Your task to perform on an android device: add a label to a message in the gmail app Image 0: 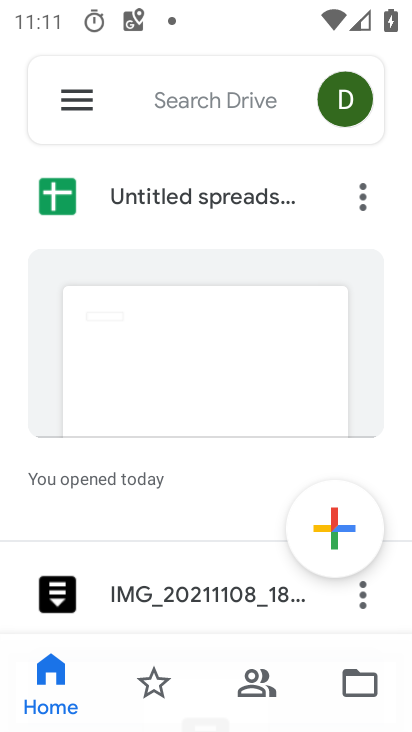
Step 0: press home button
Your task to perform on an android device: add a label to a message in the gmail app Image 1: 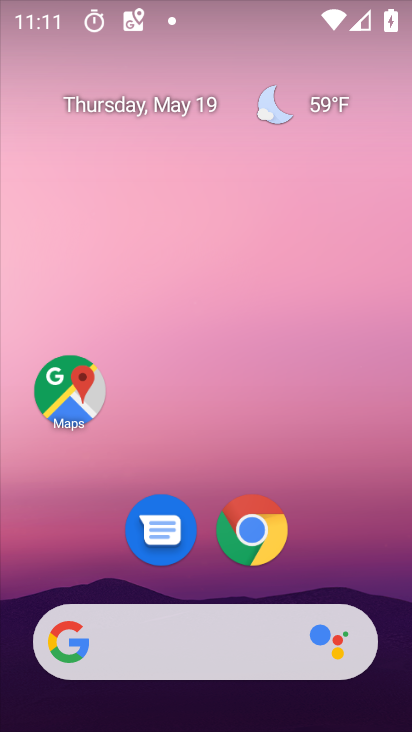
Step 1: drag from (371, 561) to (321, 115)
Your task to perform on an android device: add a label to a message in the gmail app Image 2: 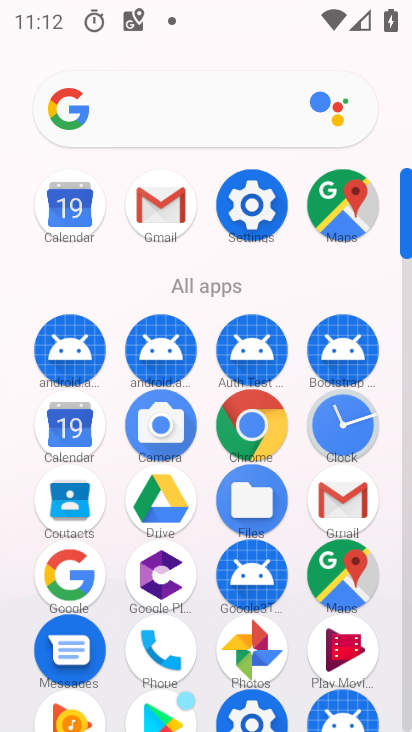
Step 2: click (334, 504)
Your task to perform on an android device: add a label to a message in the gmail app Image 3: 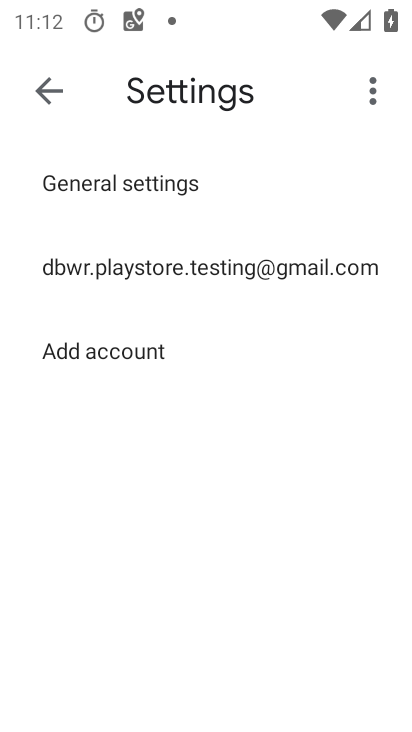
Step 3: click (249, 276)
Your task to perform on an android device: add a label to a message in the gmail app Image 4: 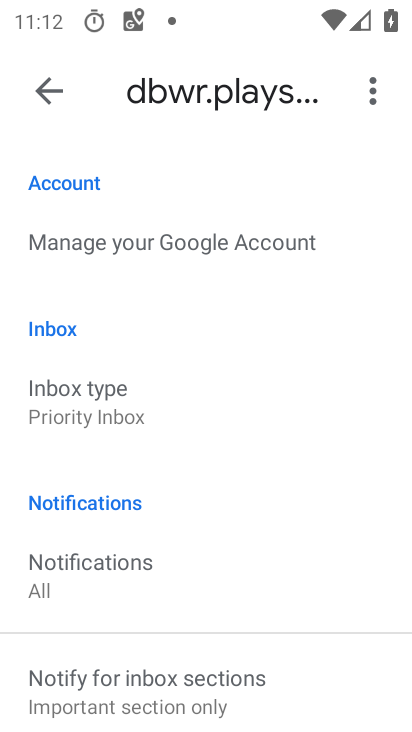
Step 4: click (54, 116)
Your task to perform on an android device: add a label to a message in the gmail app Image 5: 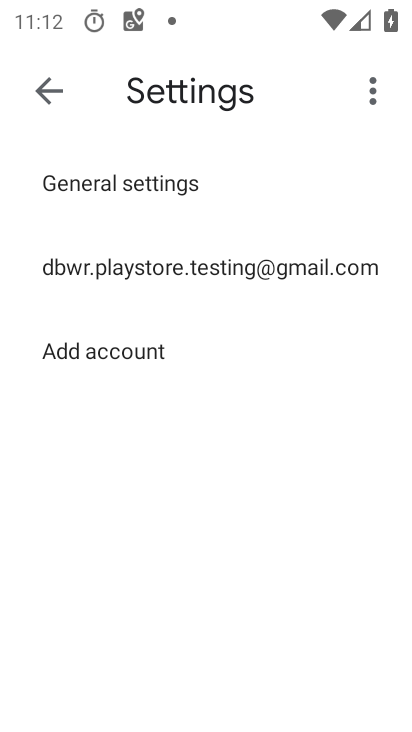
Step 5: click (54, 116)
Your task to perform on an android device: add a label to a message in the gmail app Image 6: 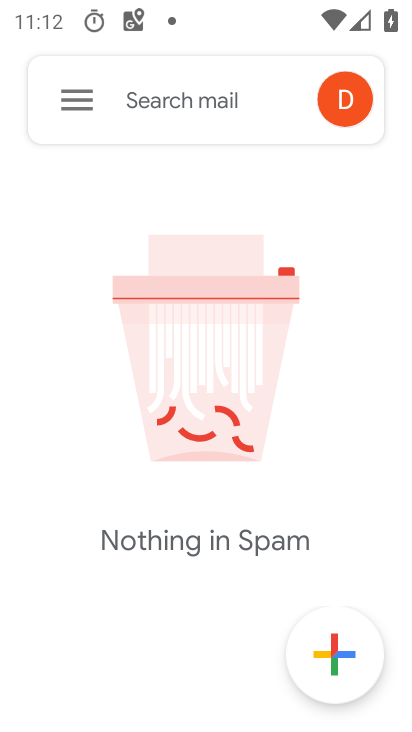
Step 6: click (88, 105)
Your task to perform on an android device: add a label to a message in the gmail app Image 7: 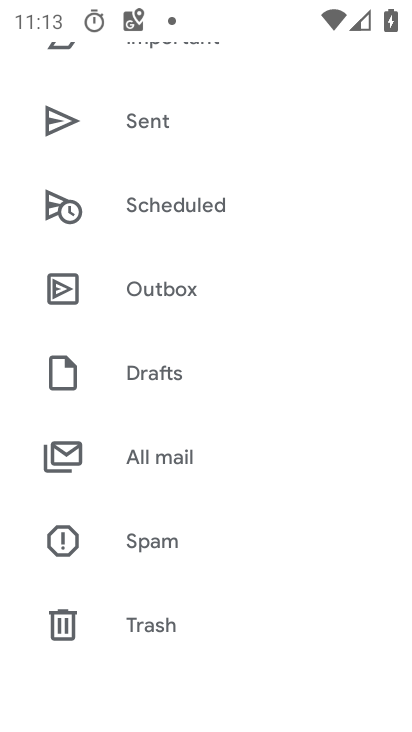
Step 7: drag from (196, 249) to (157, 529)
Your task to perform on an android device: add a label to a message in the gmail app Image 8: 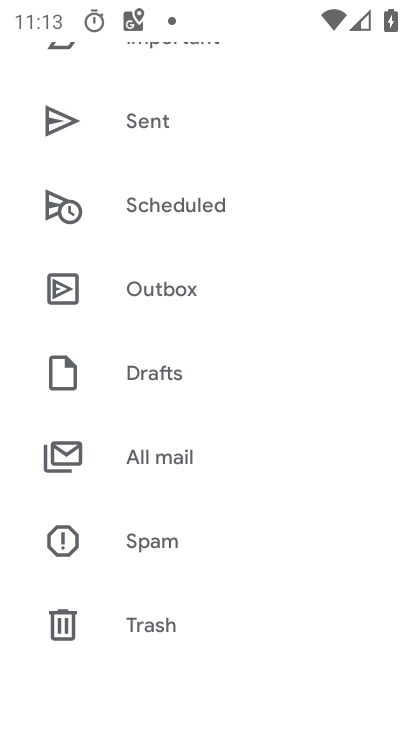
Step 8: drag from (187, 178) to (179, 587)
Your task to perform on an android device: add a label to a message in the gmail app Image 9: 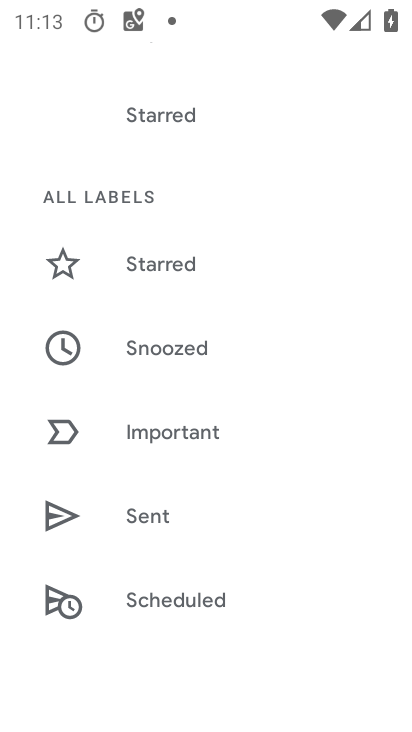
Step 9: drag from (176, 210) to (140, 650)
Your task to perform on an android device: add a label to a message in the gmail app Image 10: 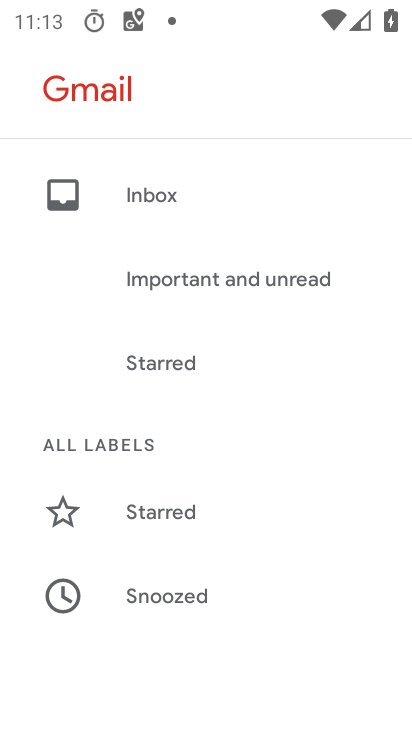
Step 10: drag from (208, 595) to (234, 209)
Your task to perform on an android device: add a label to a message in the gmail app Image 11: 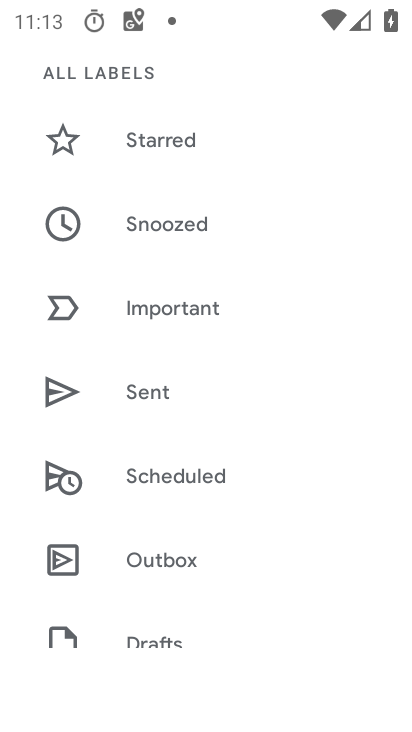
Step 11: drag from (239, 648) to (231, 294)
Your task to perform on an android device: add a label to a message in the gmail app Image 12: 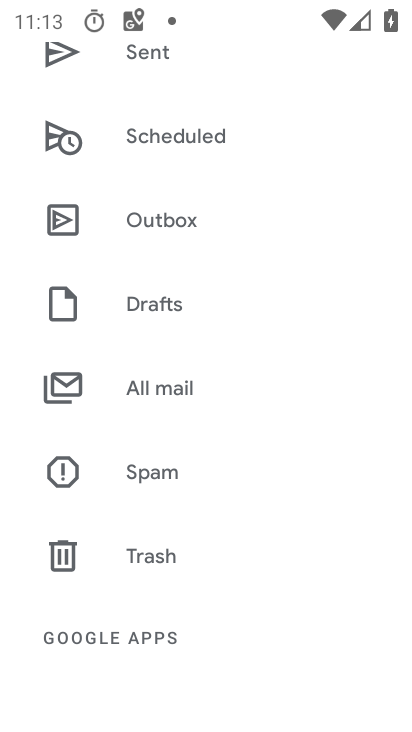
Step 12: drag from (213, 275) to (185, 546)
Your task to perform on an android device: add a label to a message in the gmail app Image 13: 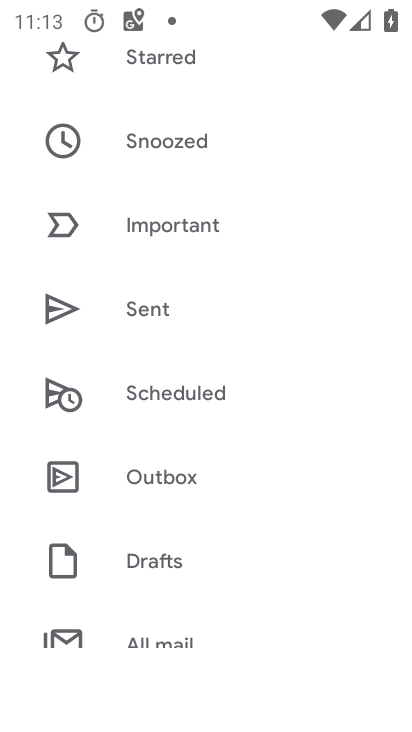
Step 13: drag from (186, 230) to (196, 528)
Your task to perform on an android device: add a label to a message in the gmail app Image 14: 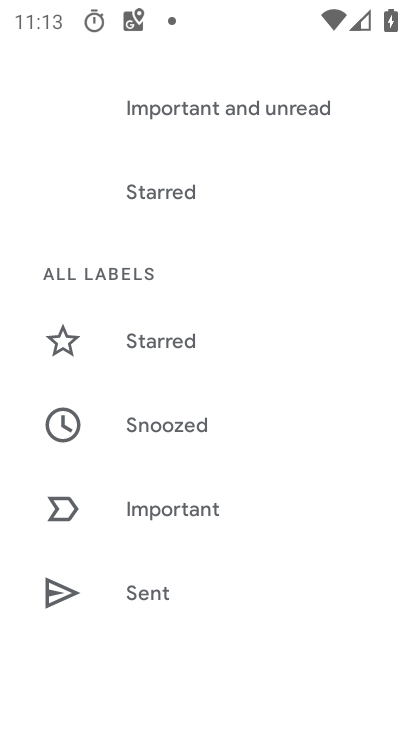
Step 14: drag from (175, 569) to (217, 202)
Your task to perform on an android device: add a label to a message in the gmail app Image 15: 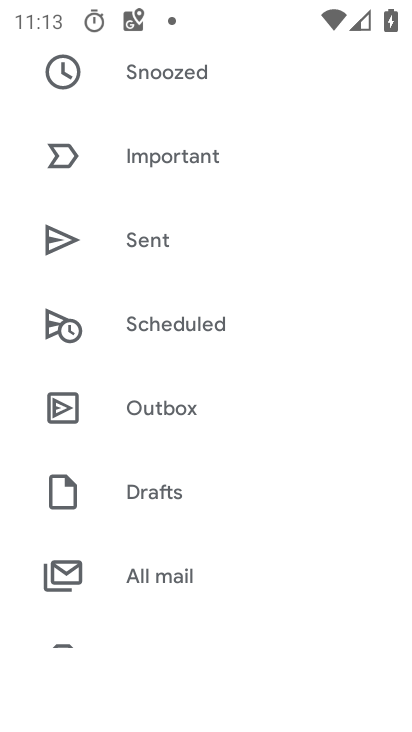
Step 15: click (177, 559)
Your task to perform on an android device: add a label to a message in the gmail app Image 16: 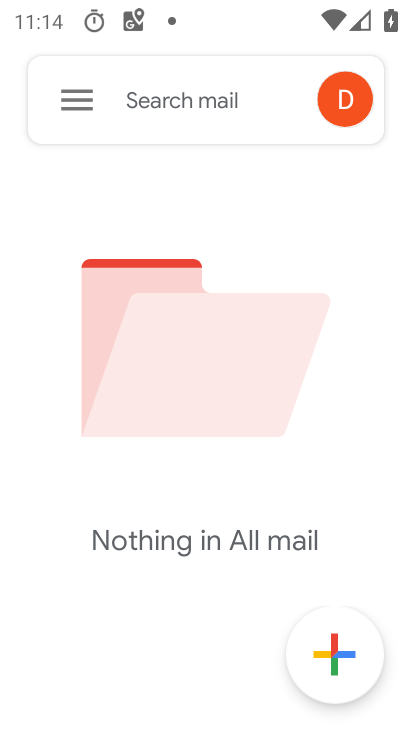
Step 16: task complete